Your task to perform on an android device: check android version Image 0: 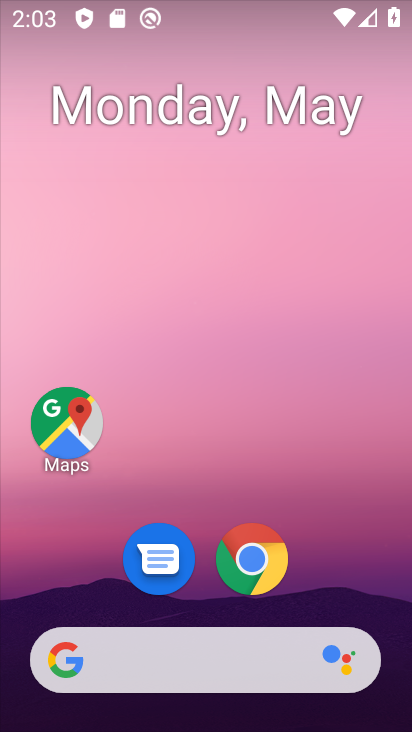
Step 0: drag from (236, 704) to (291, 145)
Your task to perform on an android device: check android version Image 1: 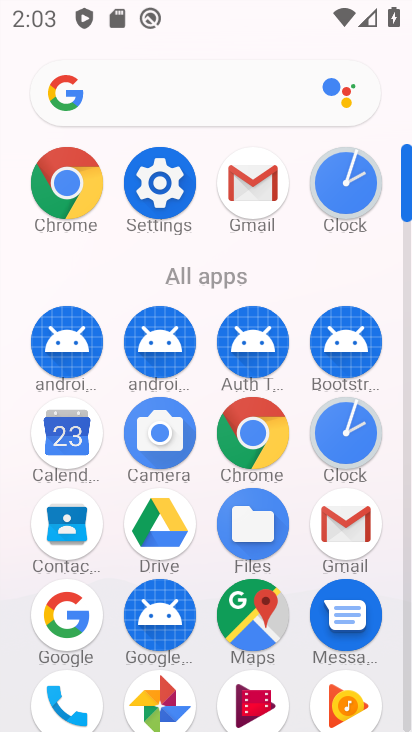
Step 1: click (152, 189)
Your task to perform on an android device: check android version Image 2: 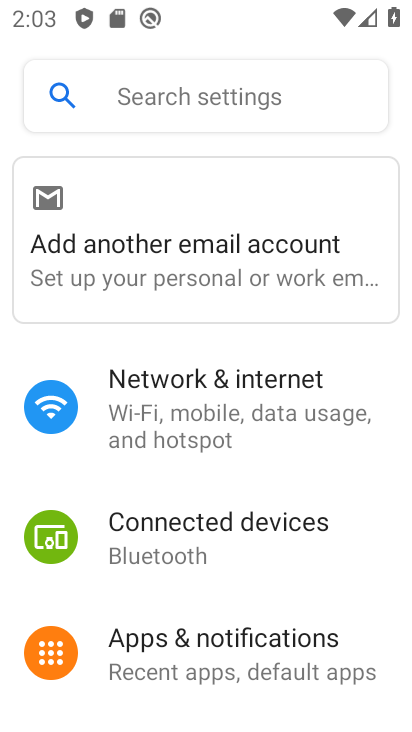
Step 2: click (186, 125)
Your task to perform on an android device: check android version Image 3: 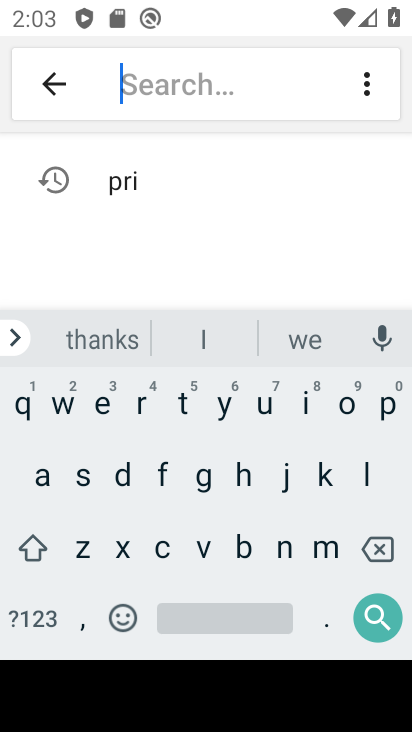
Step 3: click (46, 468)
Your task to perform on an android device: check android version Image 4: 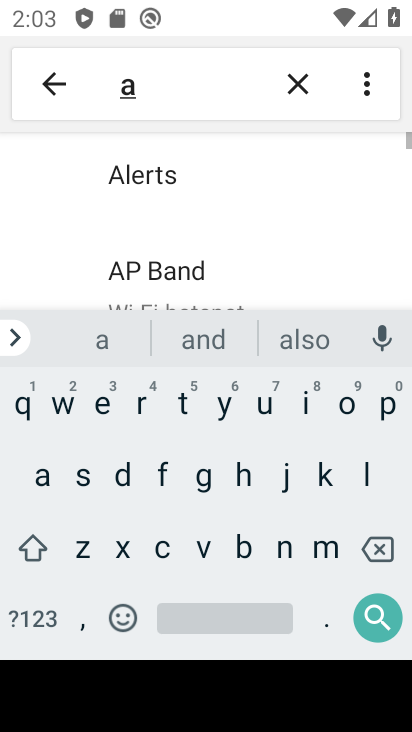
Step 4: click (287, 551)
Your task to perform on an android device: check android version Image 5: 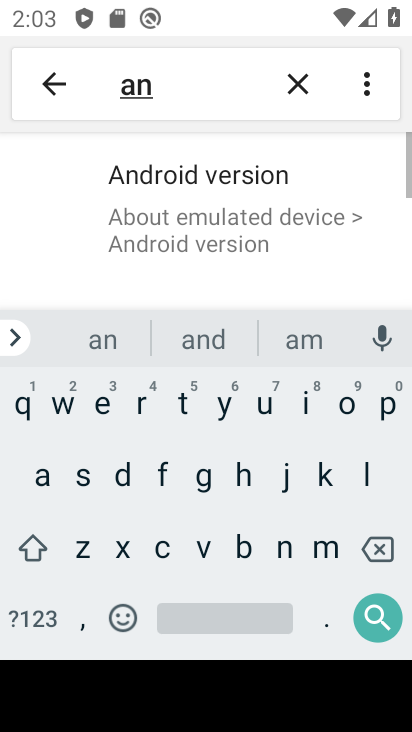
Step 5: click (180, 191)
Your task to perform on an android device: check android version Image 6: 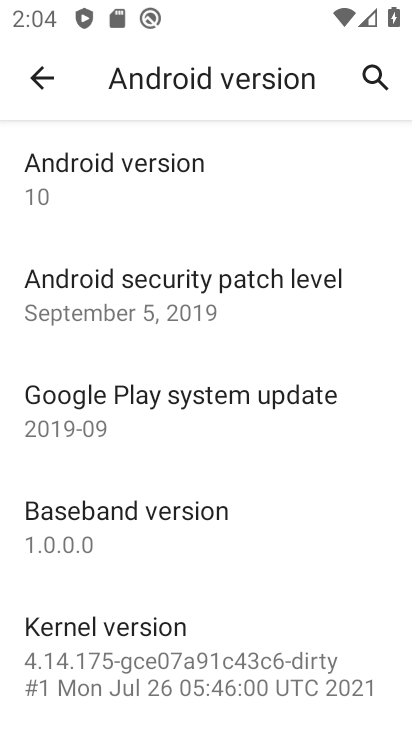
Step 6: click (165, 181)
Your task to perform on an android device: check android version Image 7: 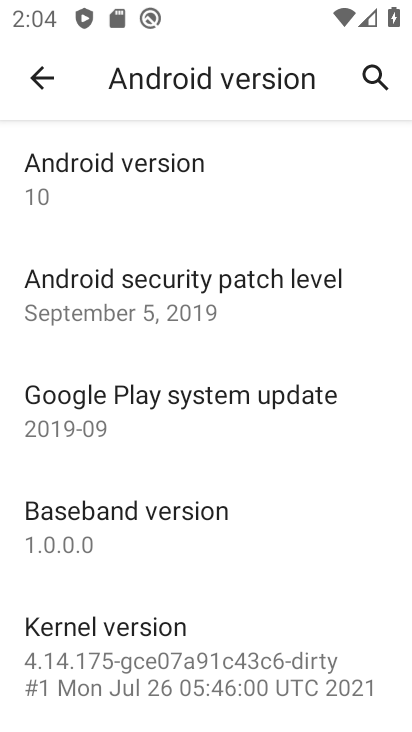
Step 7: task complete